Your task to perform on an android device: change the clock style Image 0: 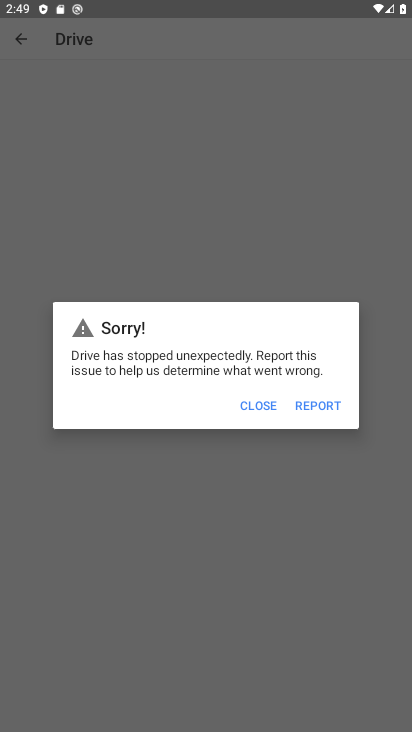
Step 0: press home button
Your task to perform on an android device: change the clock style Image 1: 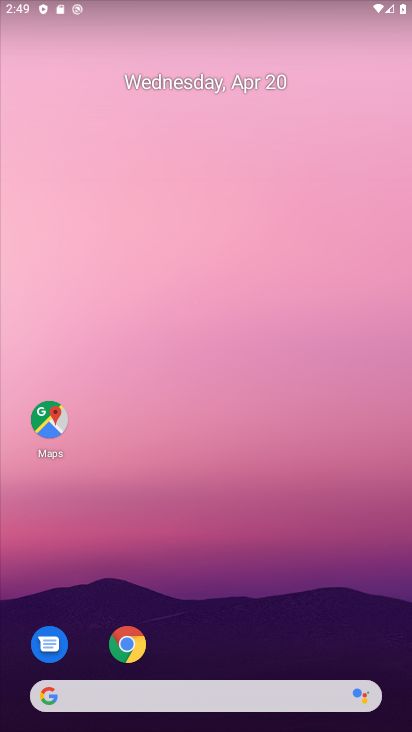
Step 1: drag from (265, 627) to (260, 28)
Your task to perform on an android device: change the clock style Image 2: 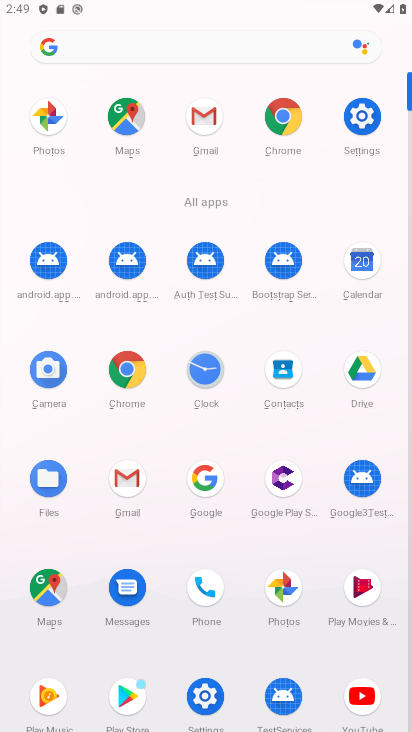
Step 2: click (207, 384)
Your task to perform on an android device: change the clock style Image 3: 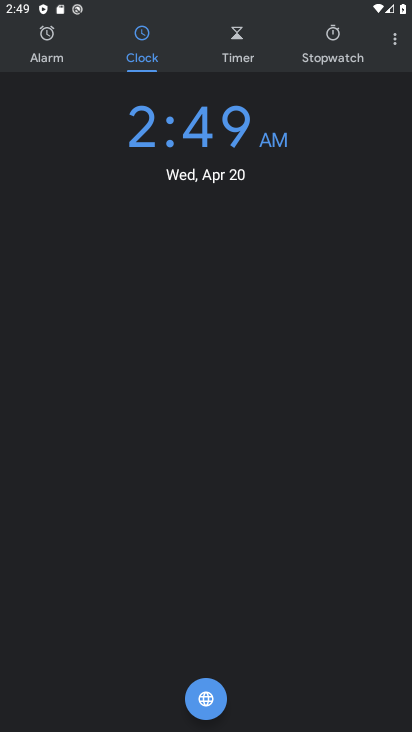
Step 3: click (392, 40)
Your task to perform on an android device: change the clock style Image 4: 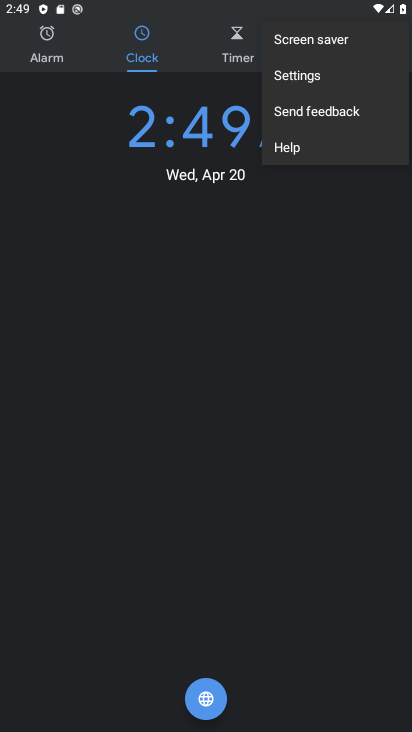
Step 4: click (304, 83)
Your task to perform on an android device: change the clock style Image 5: 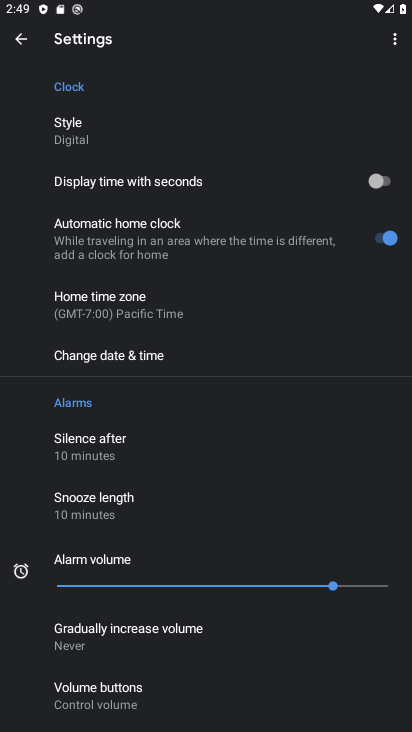
Step 5: click (96, 139)
Your task to perform on an android device: change the clock style Image 6: 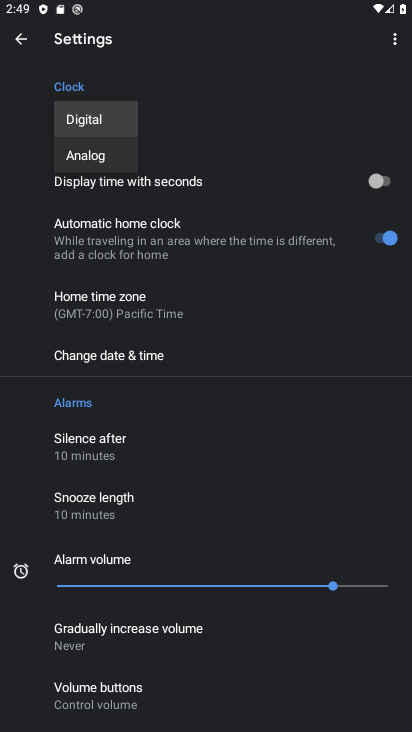
Step 6: click (105, 158)
Your task to perform on an android device: change the clock style Image 7: 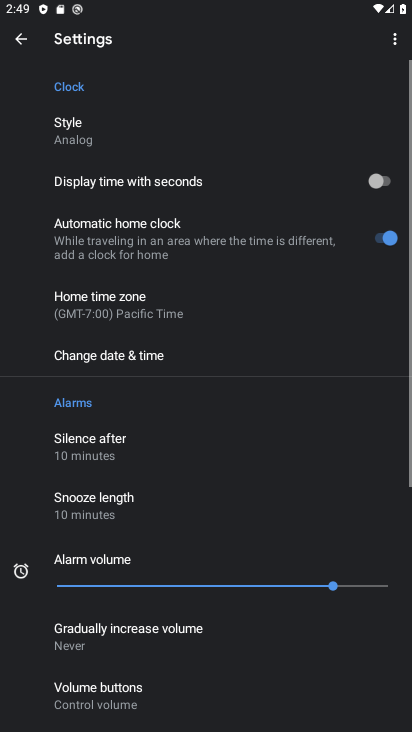
Step 7: task complete